Your task to perform on an android device: Show me popular videos on Youtube Image 0: 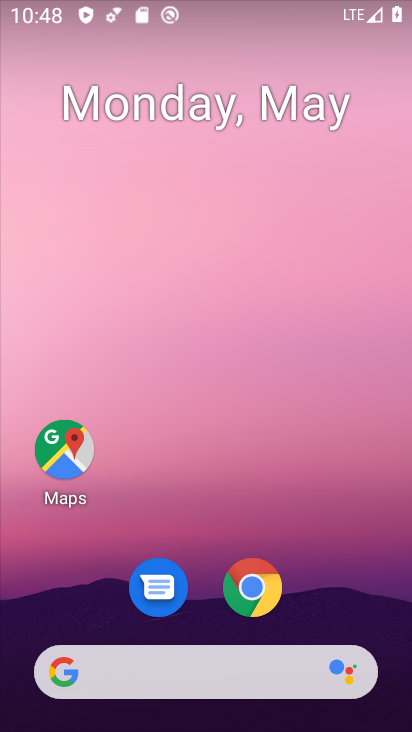
Step 0: drag from (353, 615) to (324, 157)
Your task to perform on an android device: Show me popular videos on Youtube Image 1: 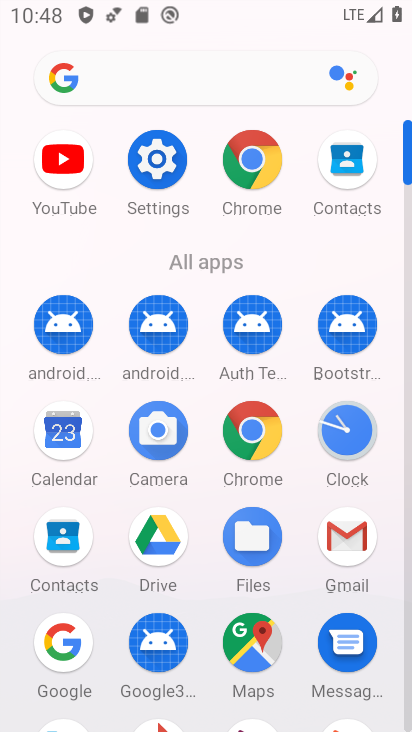
Step 1: click (73, 180)
Your task to perform on an android device: Show me popular videos on Youtube Image 2: 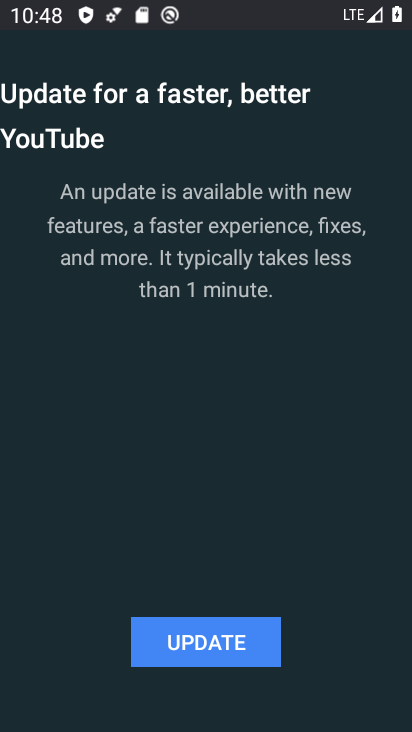
Step 2: click (241, 653)
Your task to perform on an android device: Show me popular videos on Youtube Image 3: 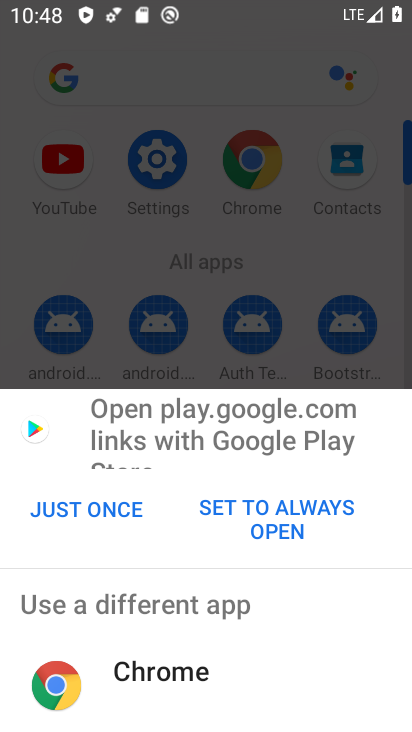
Step 3: click (118, 523)
Your task to perform on an android device: Show me popular videos on Youtube Image 4: 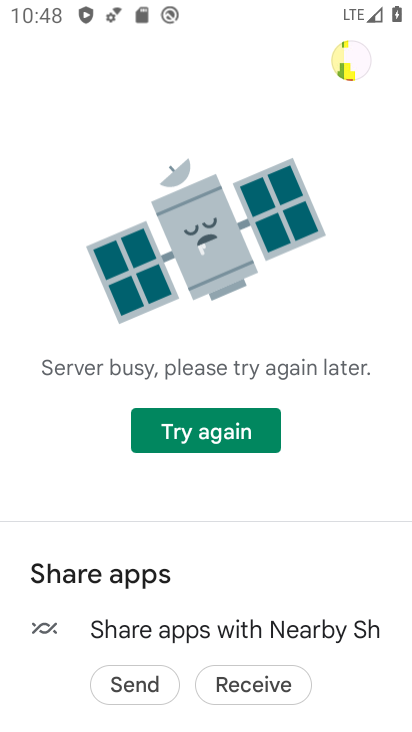
Step 4: task complete